Your task to perform on an android device: toggle improve location accuracy Image 0: 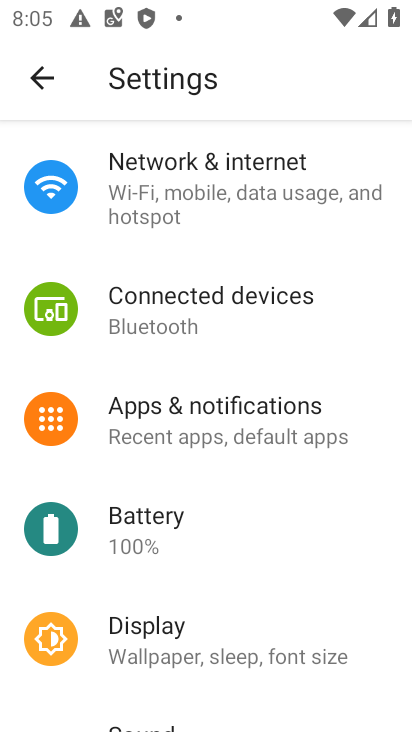
Step 0: drag from (215, 513) to (219, 361)
Your task to perform on an android device: toggle improve location accuracy Image 1: 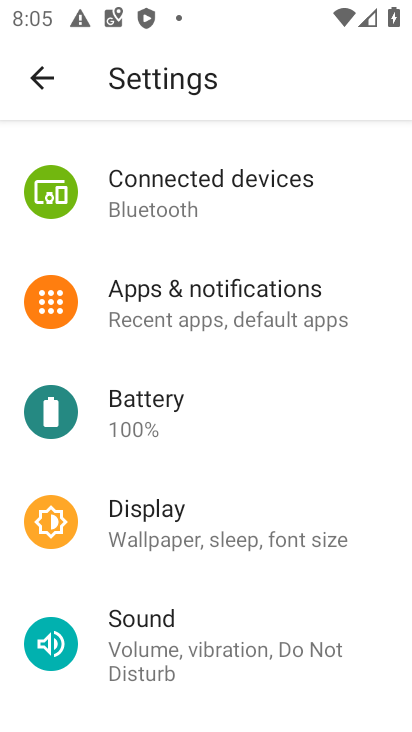
Step 1: drag from (159, 635) to (195, 390)
Your task to perform on an android device: toggle improve location accuracy Image 2: 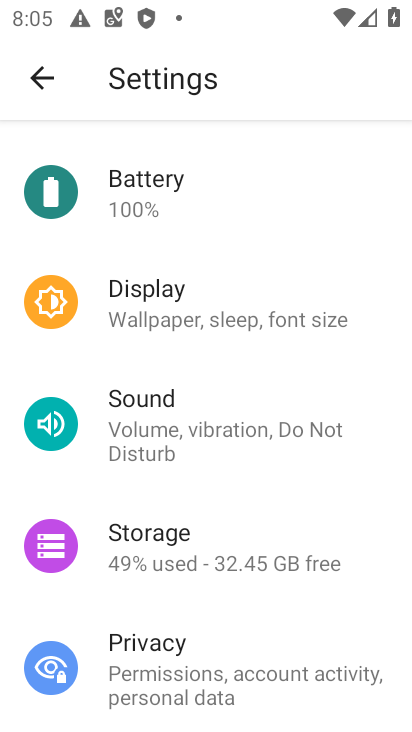
Step 2: drag from (182, 637) to (203, 387)
Your task to perform on an android device: toggle improve location accuracy Image 3: 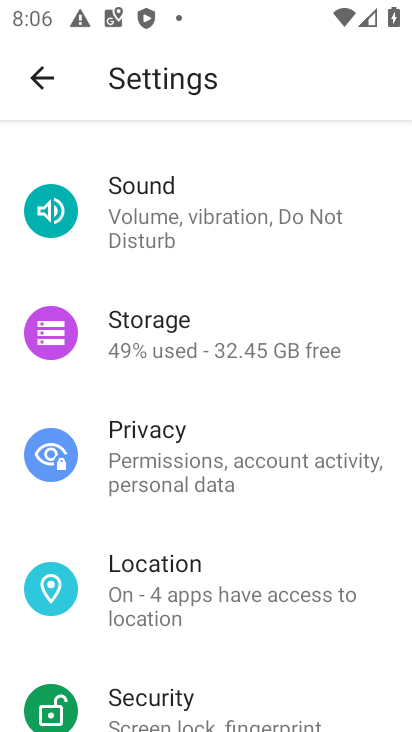
Step 3: click (161, 589)
Your task to perform on an android device: toggle improve location accuracy Image 4: 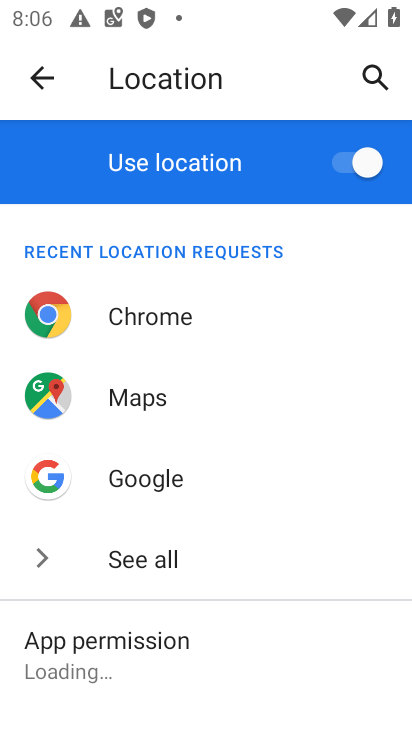
Step 4: drag from (168, 661) to (167, 456)
Your task to perform on an android device: toggle improve location accuracy Image 5: 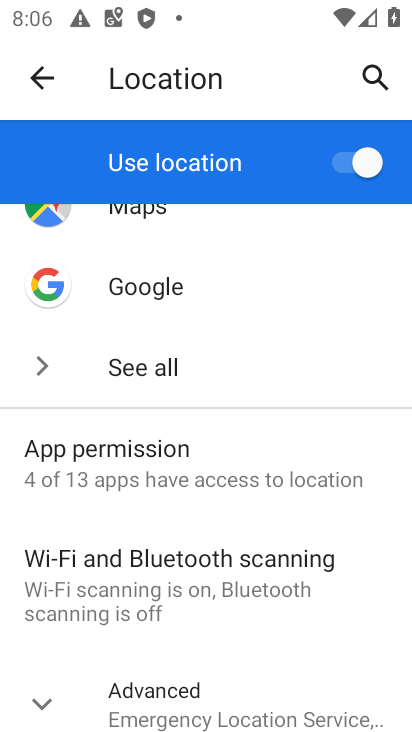
Step 5: drag from (178, 627) to (188, 396)
Your task to perform on an android device: toggle improve location accuracy Image 6: 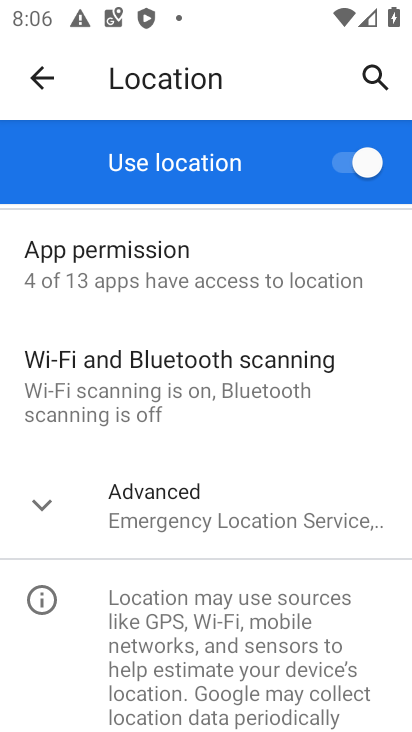
Step 6: click (174, 497)
Your task to perform on an android device: toggle improve location accuracy Image 7: 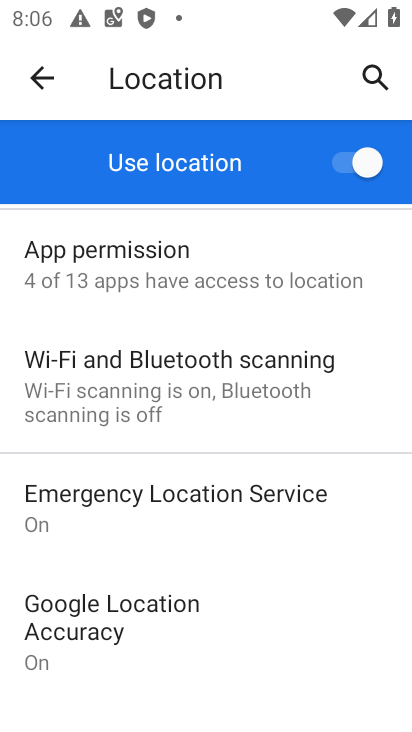
Step 7: drag from (139, 622) to (157, 483)
Your task to perform on an android device: toggle improve location accuracy Image 8: 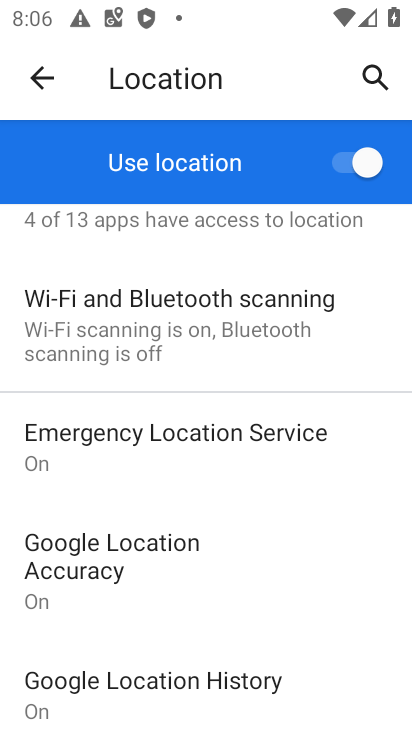
Step 8: click (127, 562)
Your task to perform on an android device: toggle improve location accuracy Image 9: 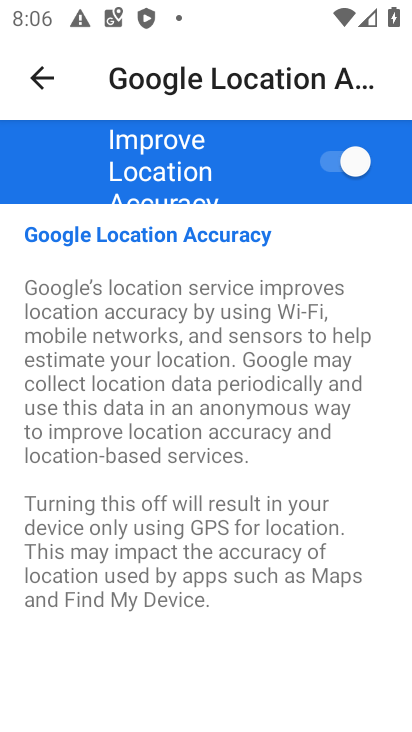
Step 9: click (313, 160)
Your task to perform on an android device: toggle improve location accuracy Image 10: 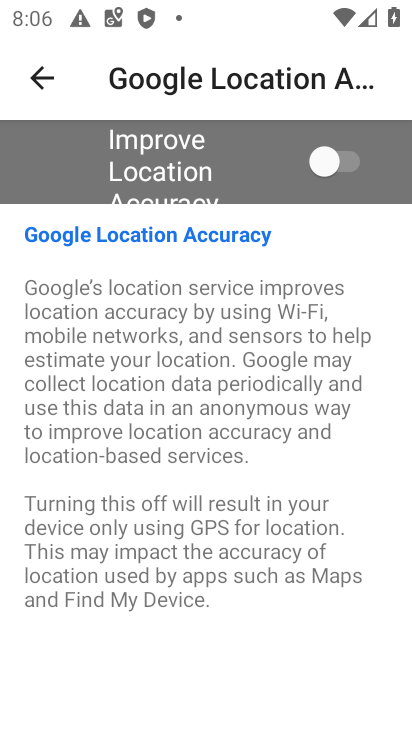
Step 10: task complete